Your task to perform on an android device: Search for macbook on amazon.com, select the first entry, add it to the cart, then select checkout. Image 0: 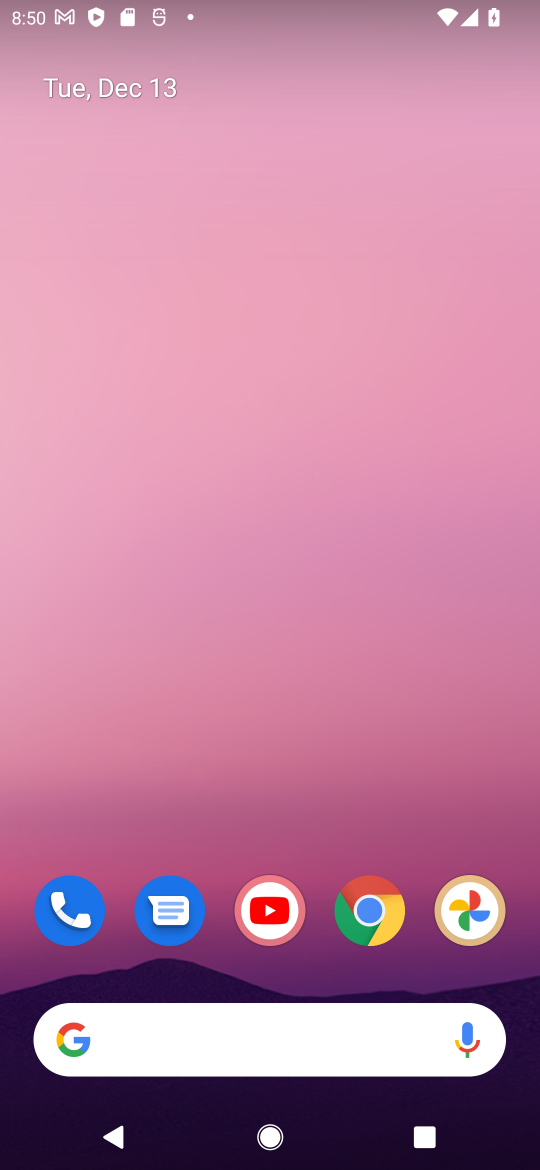
Step 0: drag from (279, 1022) to (231, 341)
Your task to perform on an android device: Search for macbook on amazon.com, select the first entry, add it to the cart, then select checkout. Image 1: 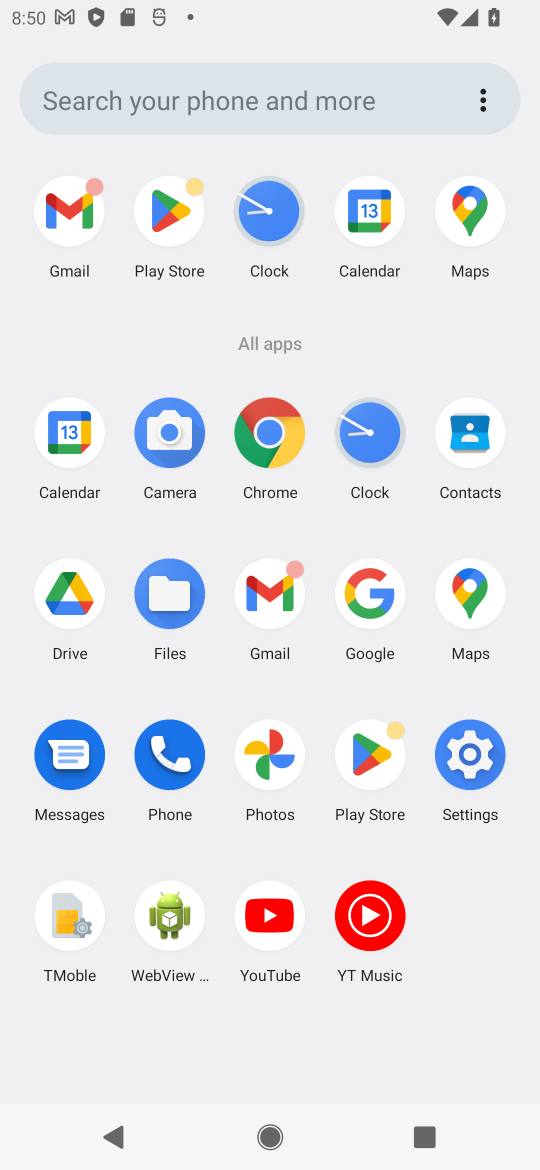
Step 1: click (373, 587)
Your task to perform on an android device: Search for macbook on amazon.com, select the first entry, add it to the cart, then select checkout. Image 2: 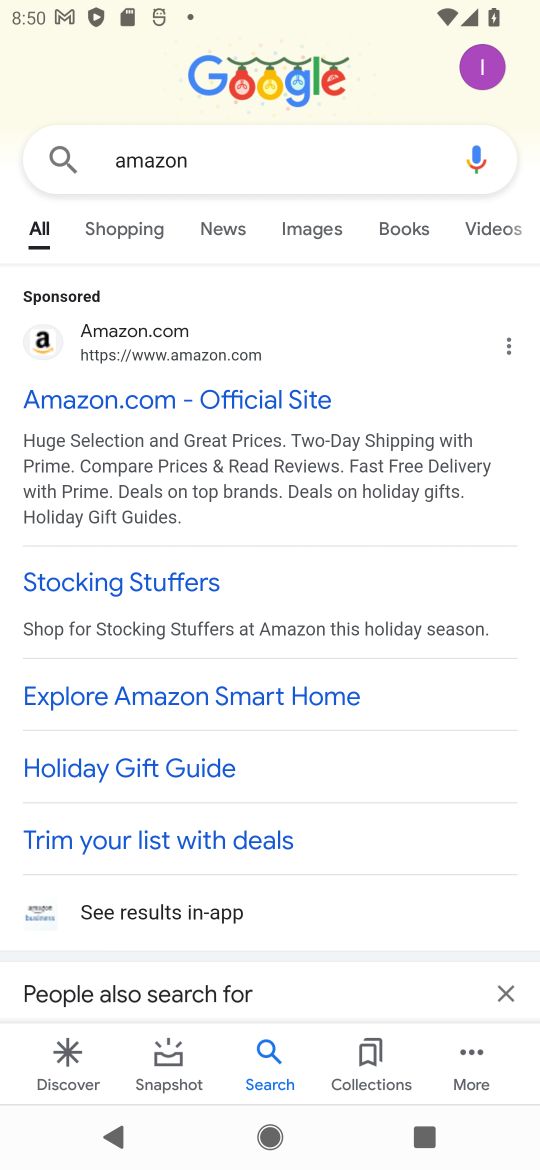
Step 2: click (115, 410)
Your task to perform on an android device: Search for macbook on amazon.com, select the first entry, add it to the cart, then select checkout. Image 3: 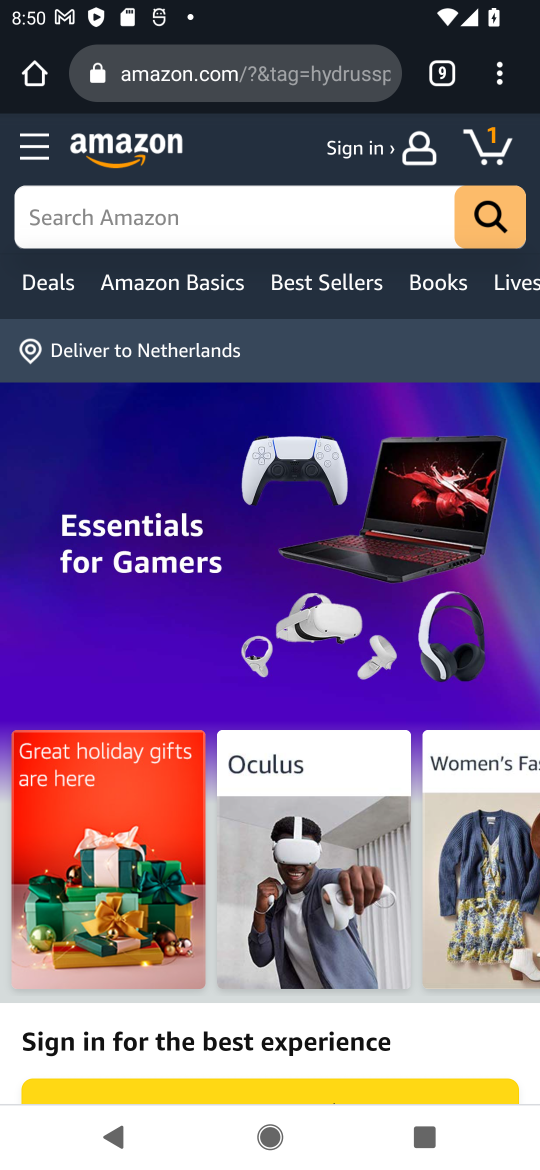
Step 3: click (190, 217)
Your task to perform on an android device: Search for macbook on amazon.com, select the first entry, add it to the cart, then select checkout. Image 4: 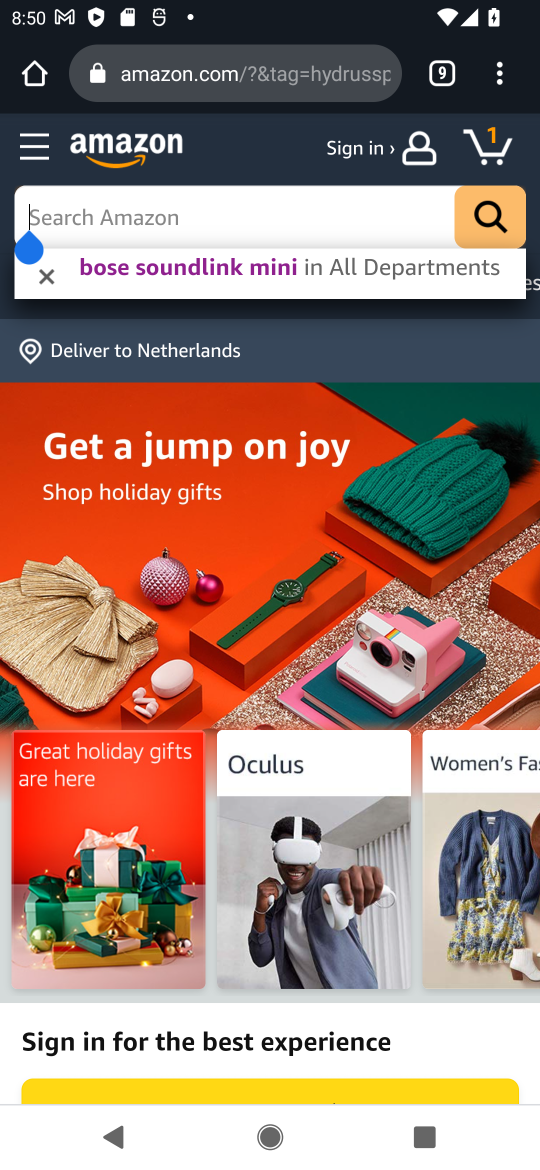
Step 4: type "macbook"
Your task to perform on an android device: Search for macbook on amazon.com, select the first entry, add it to the cart, then select checkout. Image 5: 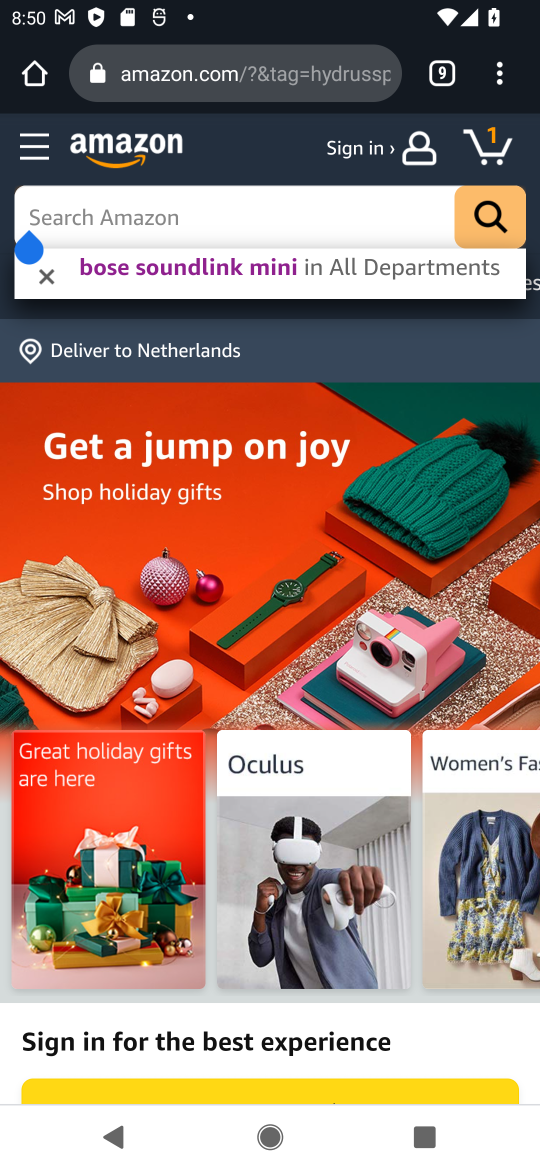
Step 5: click (495, 230)
Your task to perform on an android device: Search for macbook on amazon.com, select the first entry, add it to the cart, then select checkout. Image 6: 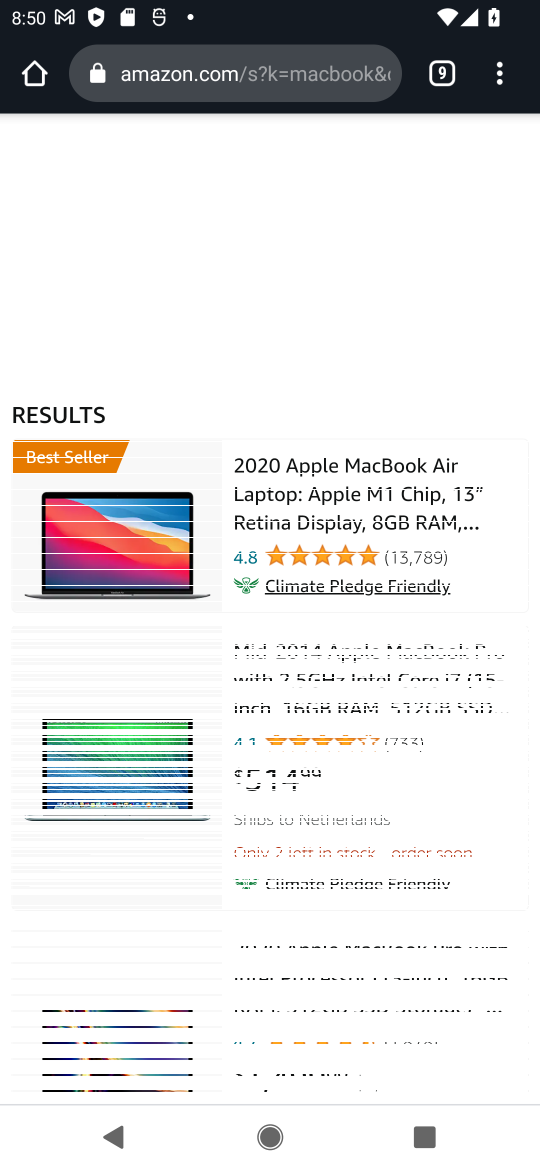
Step 6: click (306, 514)
Your task to perform on an android device: Search for macbook on amazon.com, select the first entry, add it to the cart, then select checkout. Image 7: 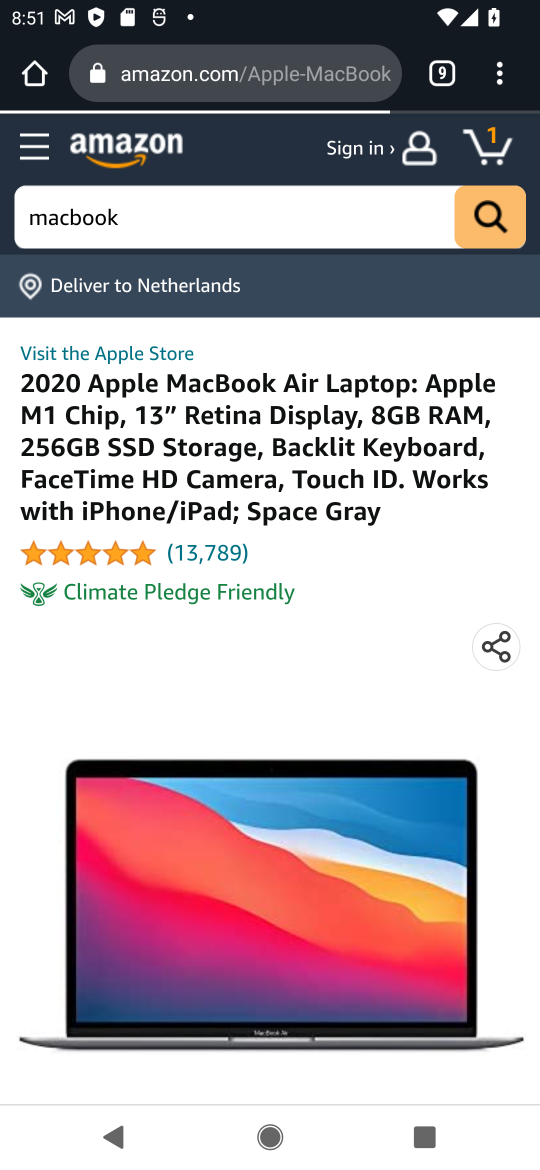
Step 7: task complete